Your task to perform on an android device: Search for seafood restaurants on Google Maps Image 0: 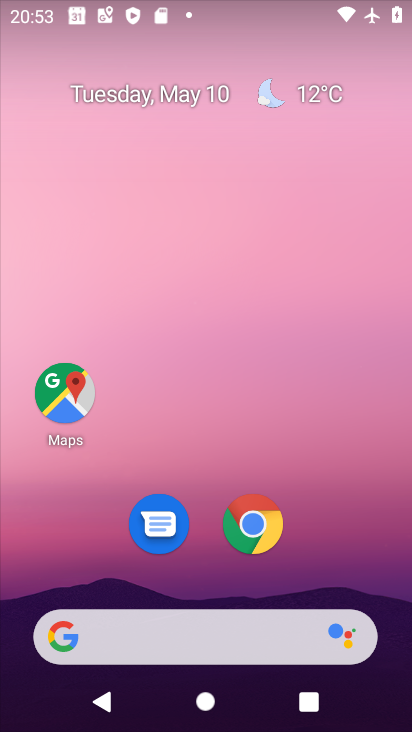
Step 0: click (62, 387)
Your task to perform on an android device: Search for seafood restaurants on Google Maps Image 1: 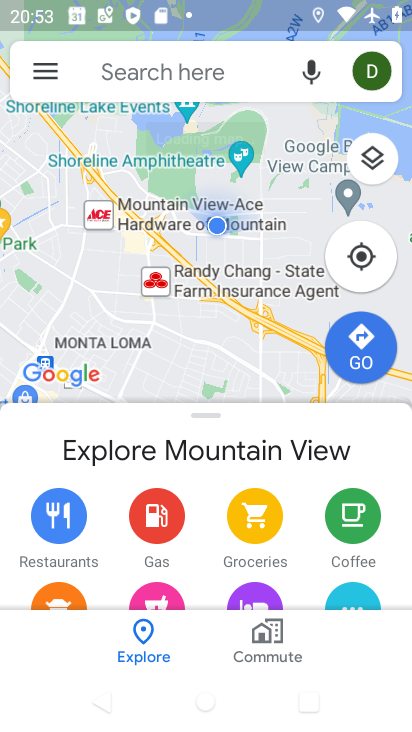
Step 1: click (122, 69)
Your task to perform on an android device: Search for seafood restaurants on Google Maps Image 2: 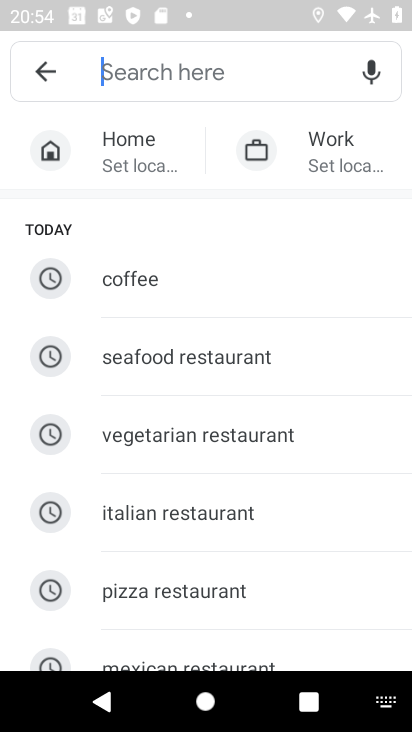
Step 2: click (192, 352)
Your task to perform on an android device: Search for seafood restaurants on Google Maps Image 3: 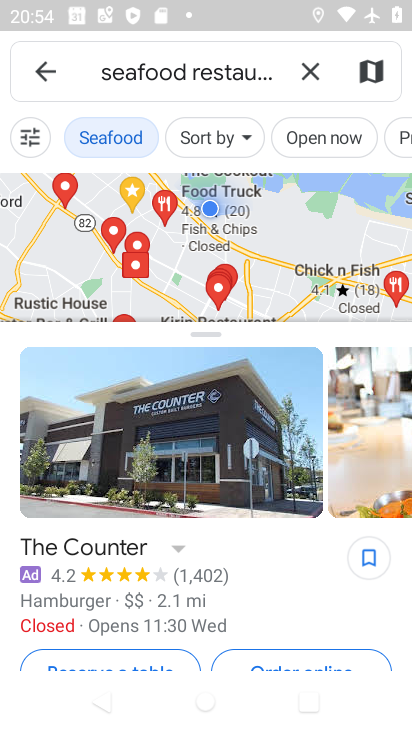
Step 3: task complete